Your task to perform on an android device: Show me the alarms in the clock app Image 0: 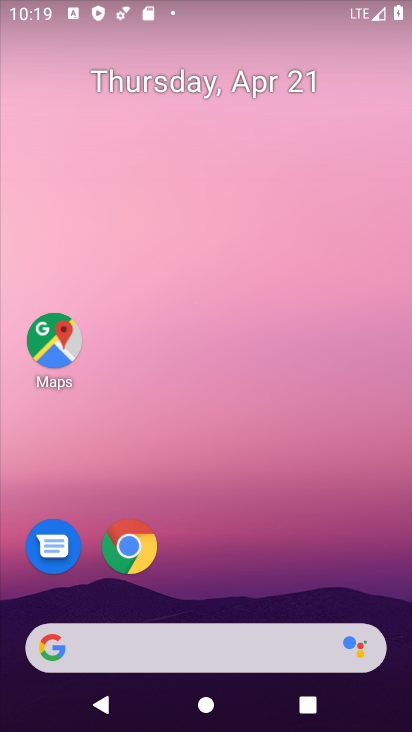
Step 0: drag from (374, 598) to (273, 14)
Your task to perform on an android device: Show me the alarms in the clock app Image 1: 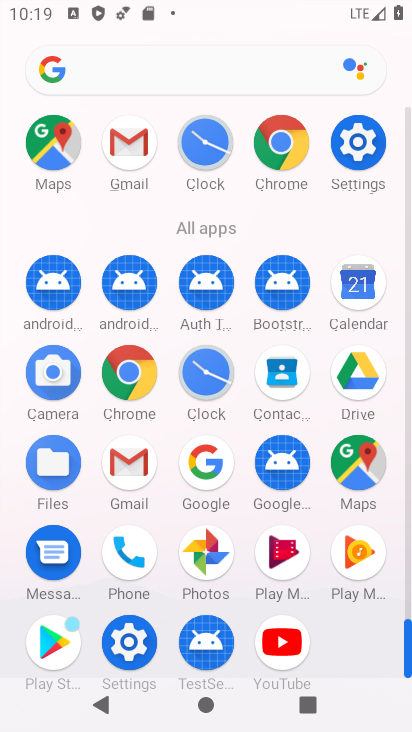
Step 1: click (203, 373)
Your task to perform on an android device: Show me the alarms in the clock app Image 2: 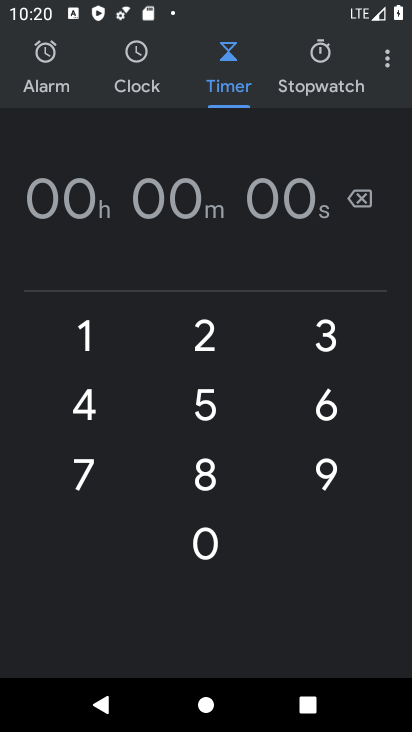
Step 2: click (45, 66)
Your task to perform on an android device: Show me the alarms in the clock app Image 3: 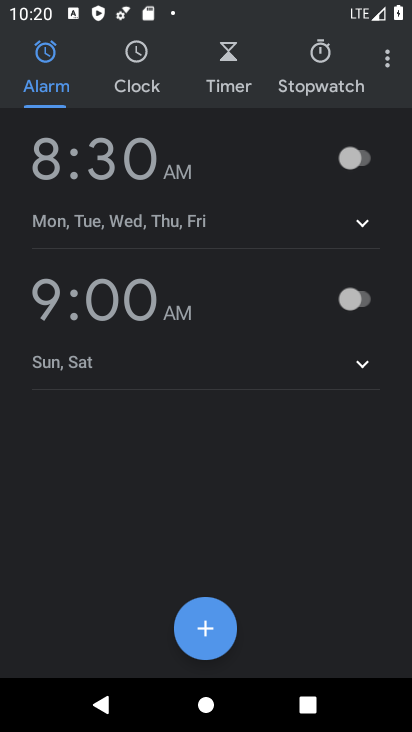
Step 3: task complete